Your task to perform on an android device: check data usage Image 0: 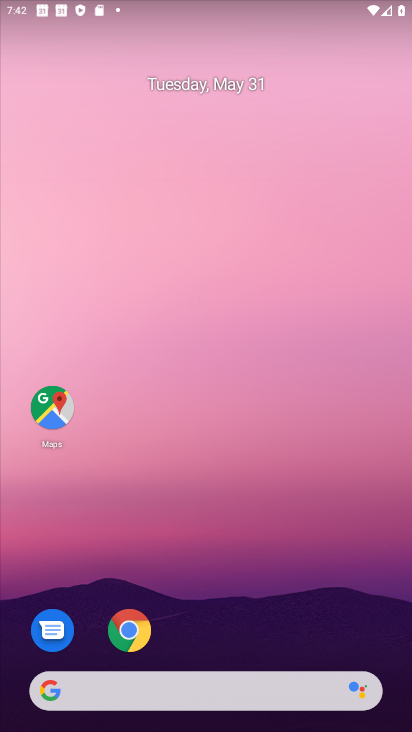
Step 0: drag from (237, 634) to (192, 261)
Your task to perform on an android device: check data usage Image 1: 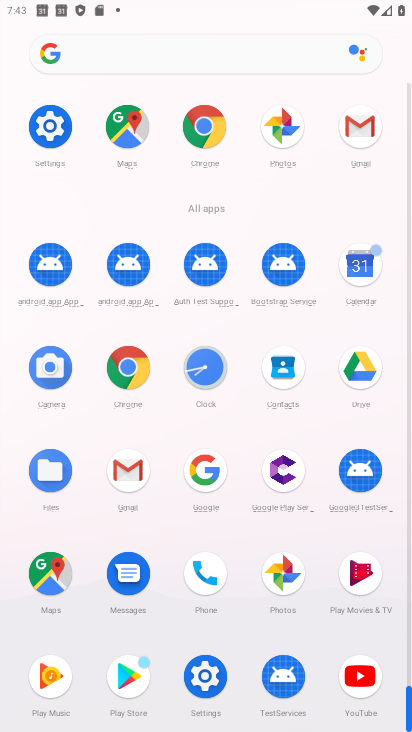
Step 1: click (47, 119)
Your task to perform on an android device: check data usage Image 2: 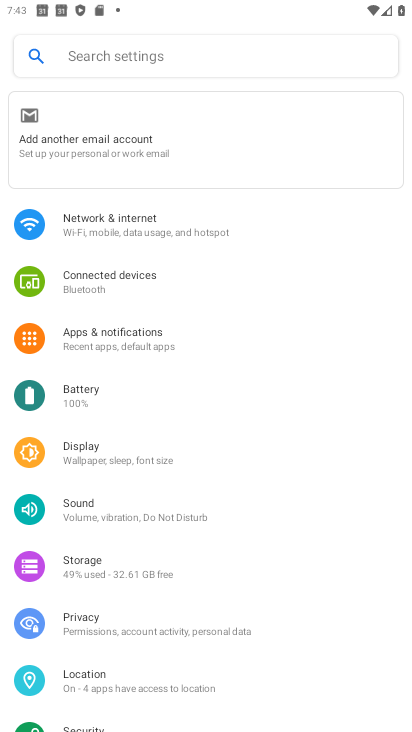
Step 2: click (156, 231)
Your task to perform on an android device: check data usage Image 3: 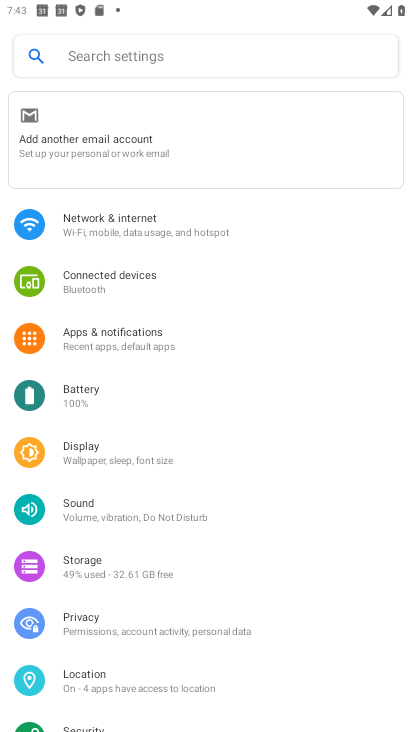
Step 3: click (118, 229)
Your task to perform on an android device: check data usage Image 4: 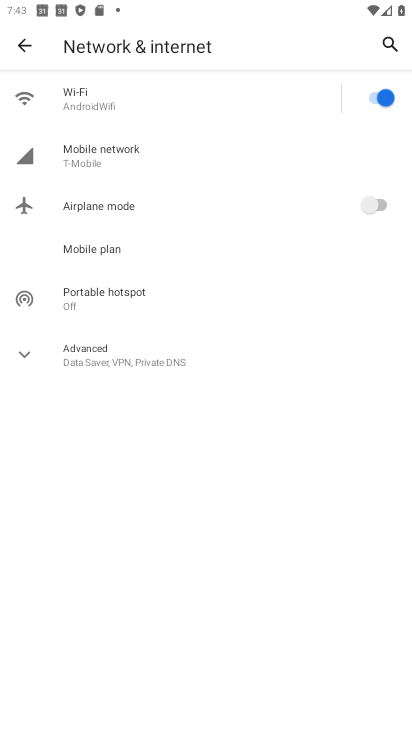
Step 4: click (131, 154)
Your task to perform on an android device: check data usage Image 5: 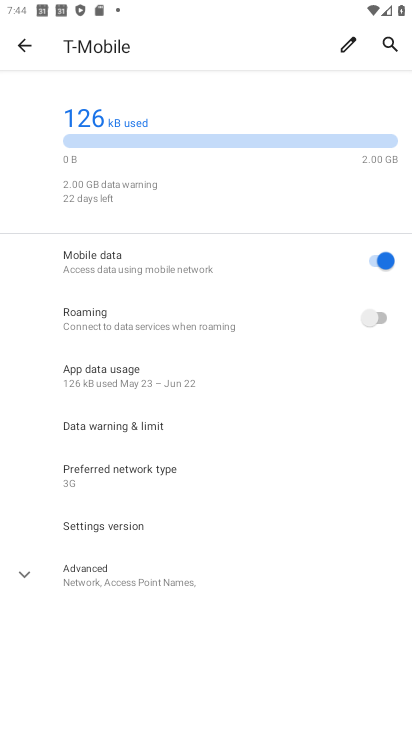
Step 5: task complete